Your task to perform on an android device: Open the web browser Image 0: 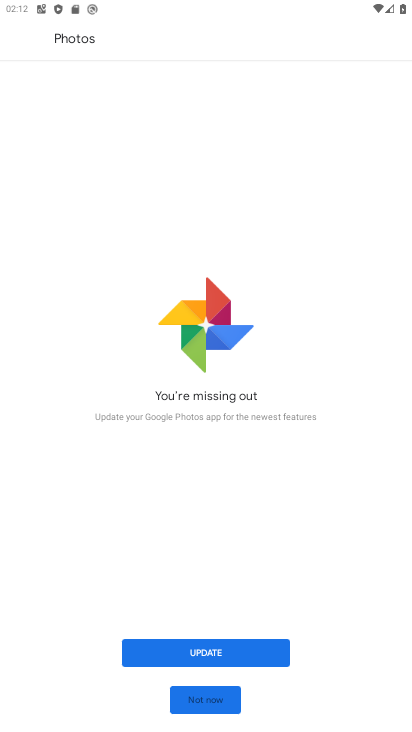
Step 0: press home button
Your task to perform on an android device: Open the web browser Image 1: 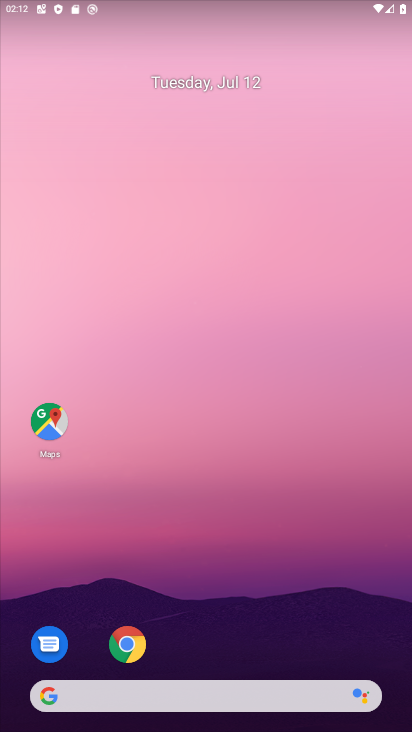
Step 1: drag from (248, 670) to (217, 134)
Your task to perform on an android device: Open the web browser Image 2: 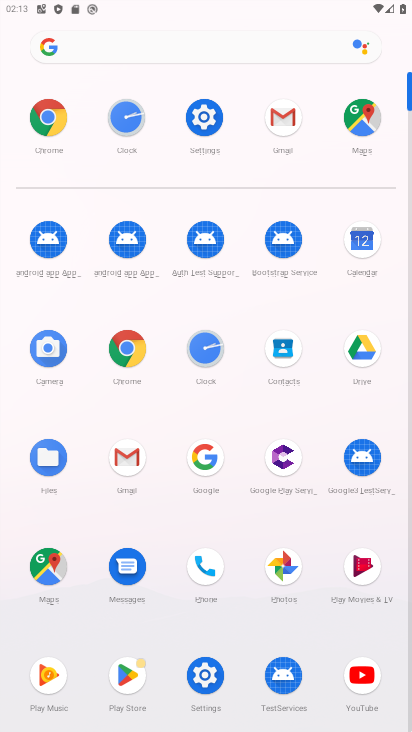
Step 2: click (191, 464)
Your task to perform on an android device: Open the web browser Image 3: 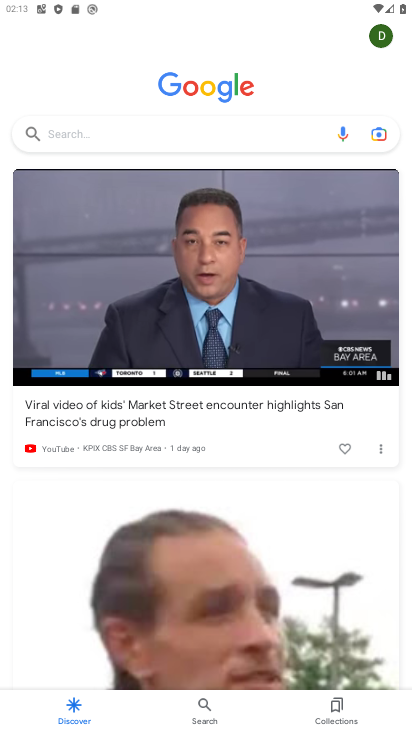
Step 3: task complete